Your task to perform on an android device: View the shopping cart on bestbuy. Add "usb-b" to the cart on bestbuy Image 0: 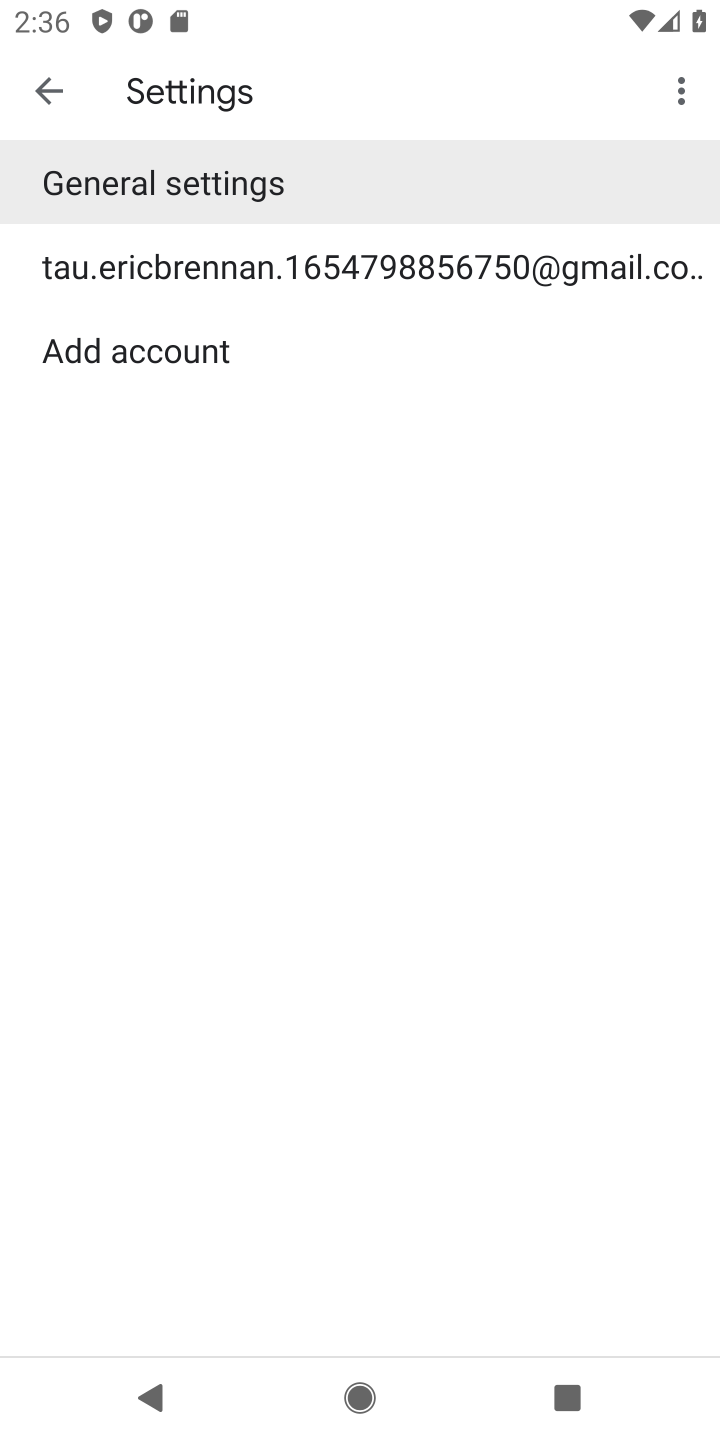
Step 0: press home button
Your task to perform on an android device: View the shopping cart on bestbuy. Add "usb-b" to the cart on bestbuy Image 1: 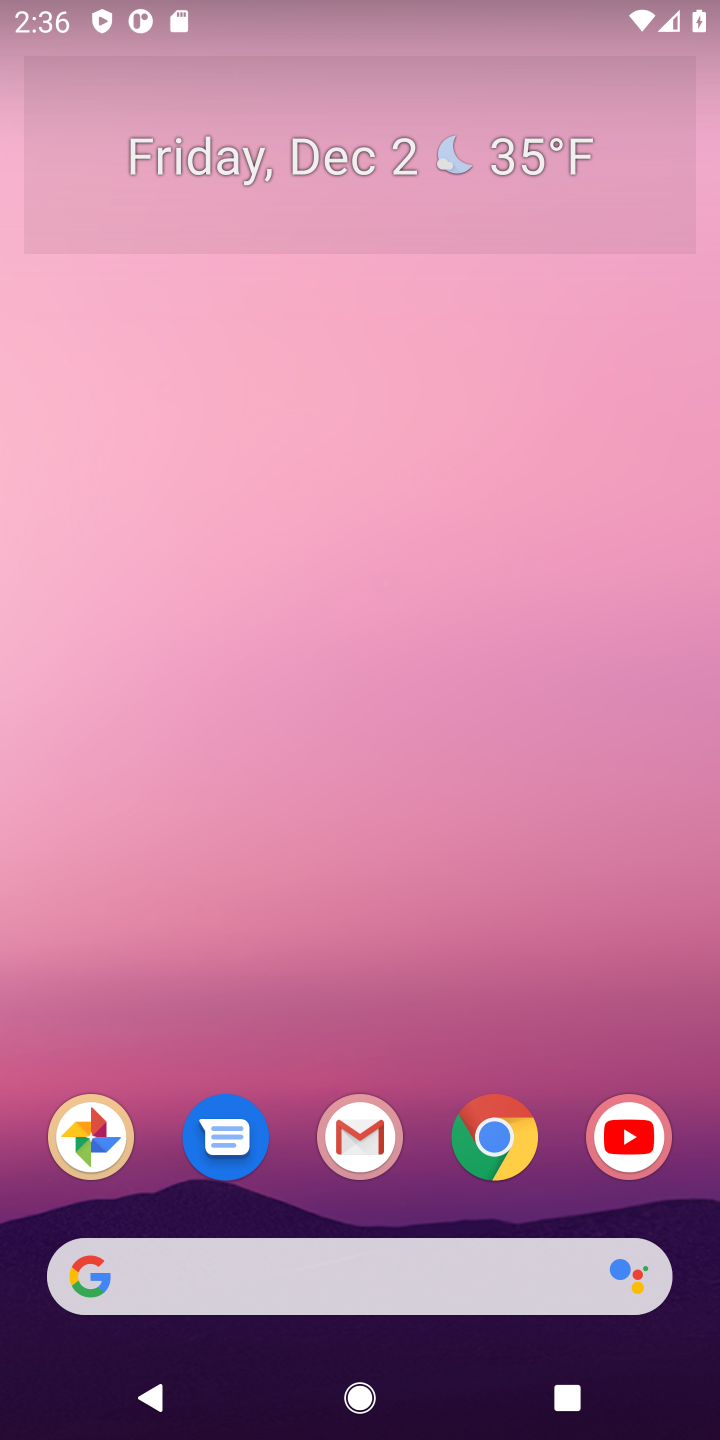
Step 1: drag from (331, 942) to (271, 370)
Your task to perform on an android device: View the shopping cart on bestbuy. Add "usb-b" to the cart on bestbuy Image 2: 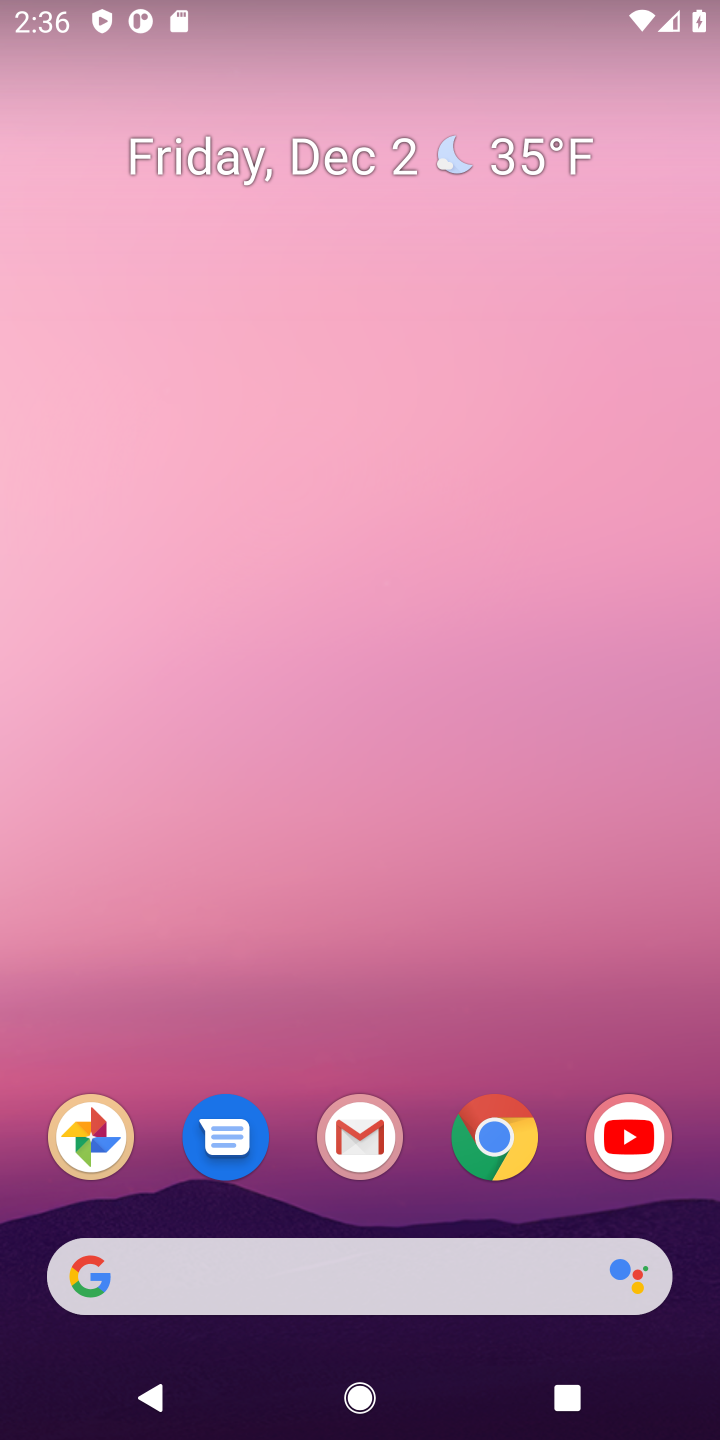
Step 2: click (362, 382)
Your task to perform on an android device: View the shopping cart on bestbuy. Add "usb-b" to the cart on bestbuy Image 3: 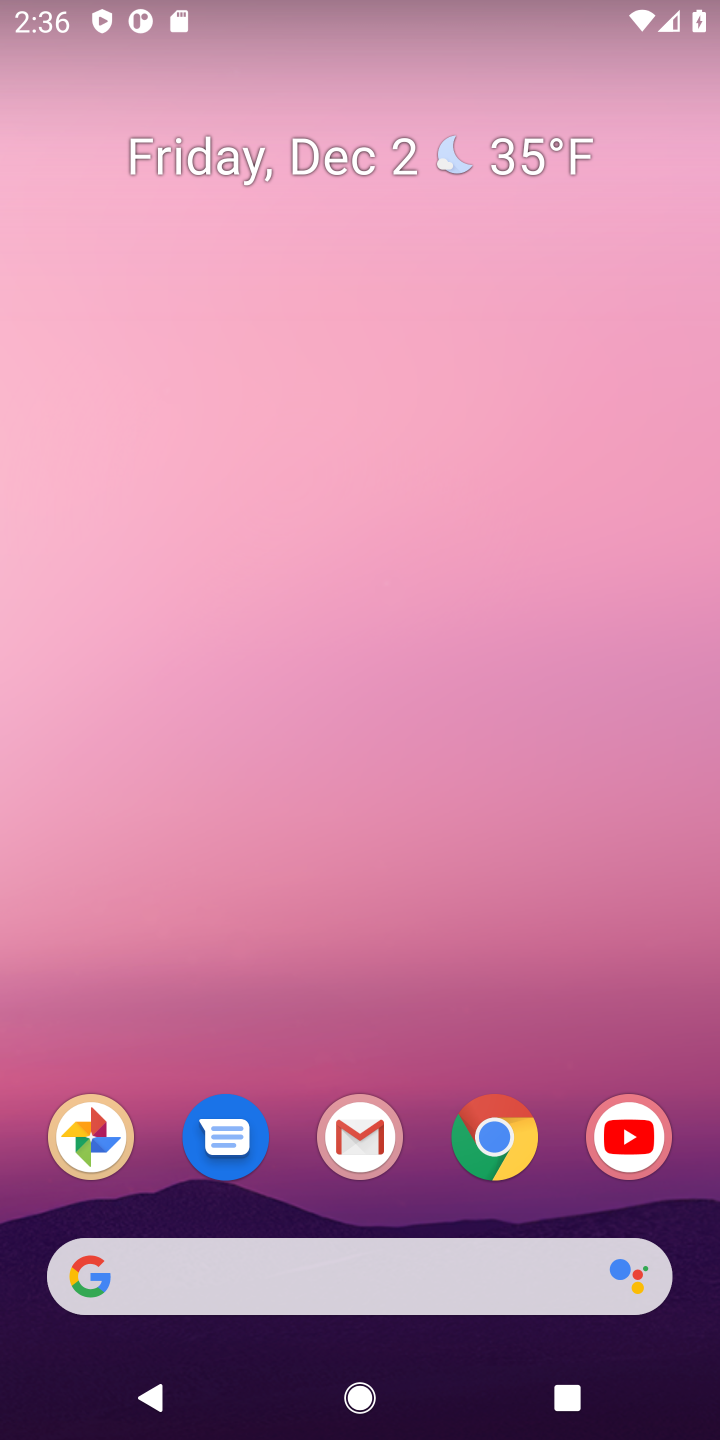
Step 3: drag from (282, 627) to (282, 263)
Your task to perform on an android device: View the shopping cart on bestbuy. Add "usb-b" to the cart on bestbuy Image 4: 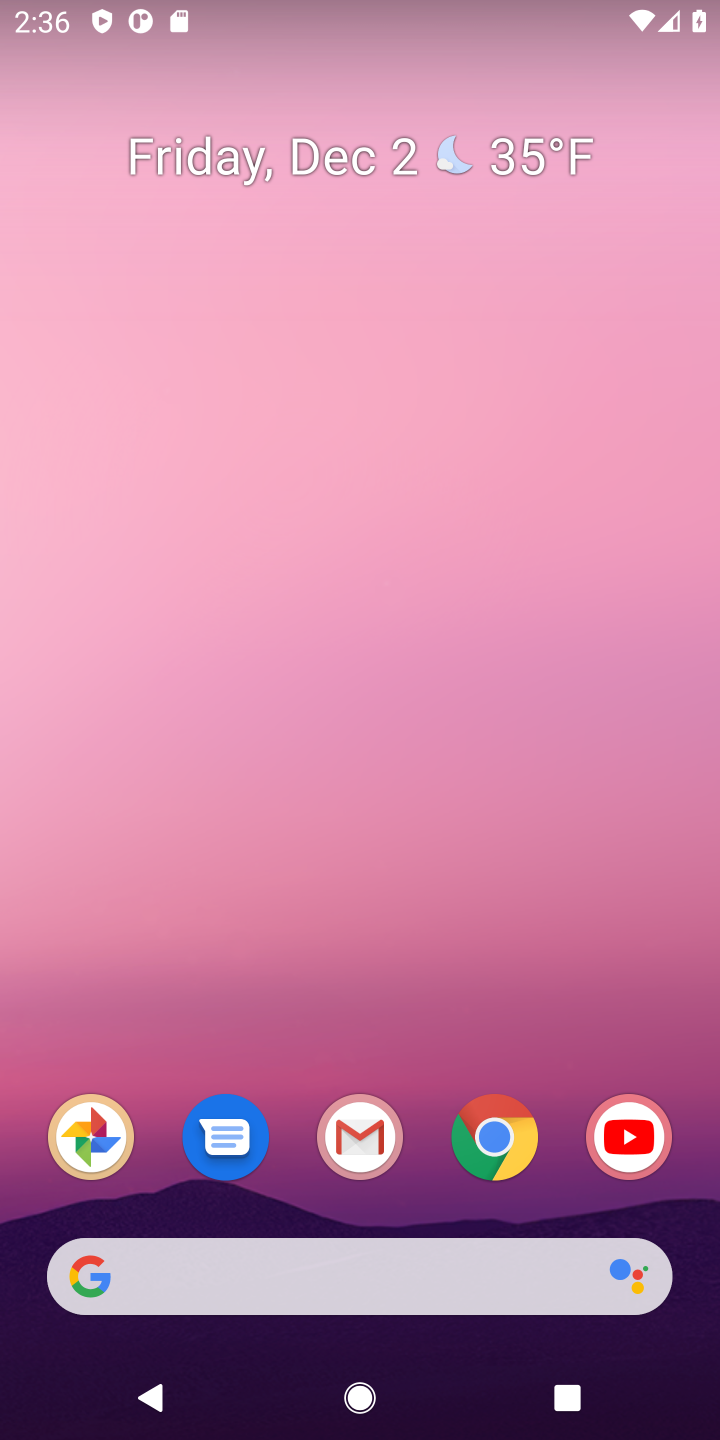
Step 4: drag from (364, 970) to (364, 240)
Your task to perform on an android device: View the shopping cart on bestbuy. Add "usb-b" to the cart on bestbuy Image 5: 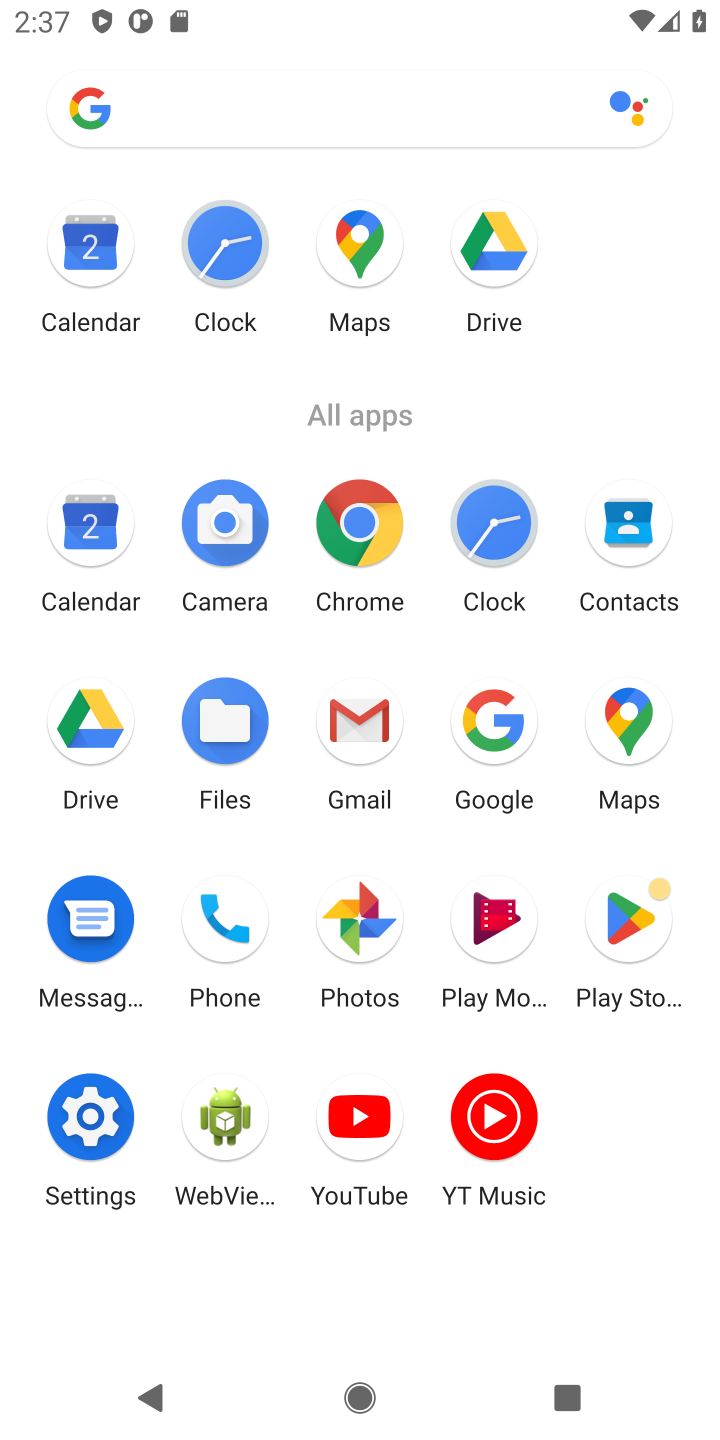
Step 5: click (499, 729)
Your task to perform on an android device: View the shopping cart on bestbuy. Add "usb-b" to the cart on bestbuy Image 6: 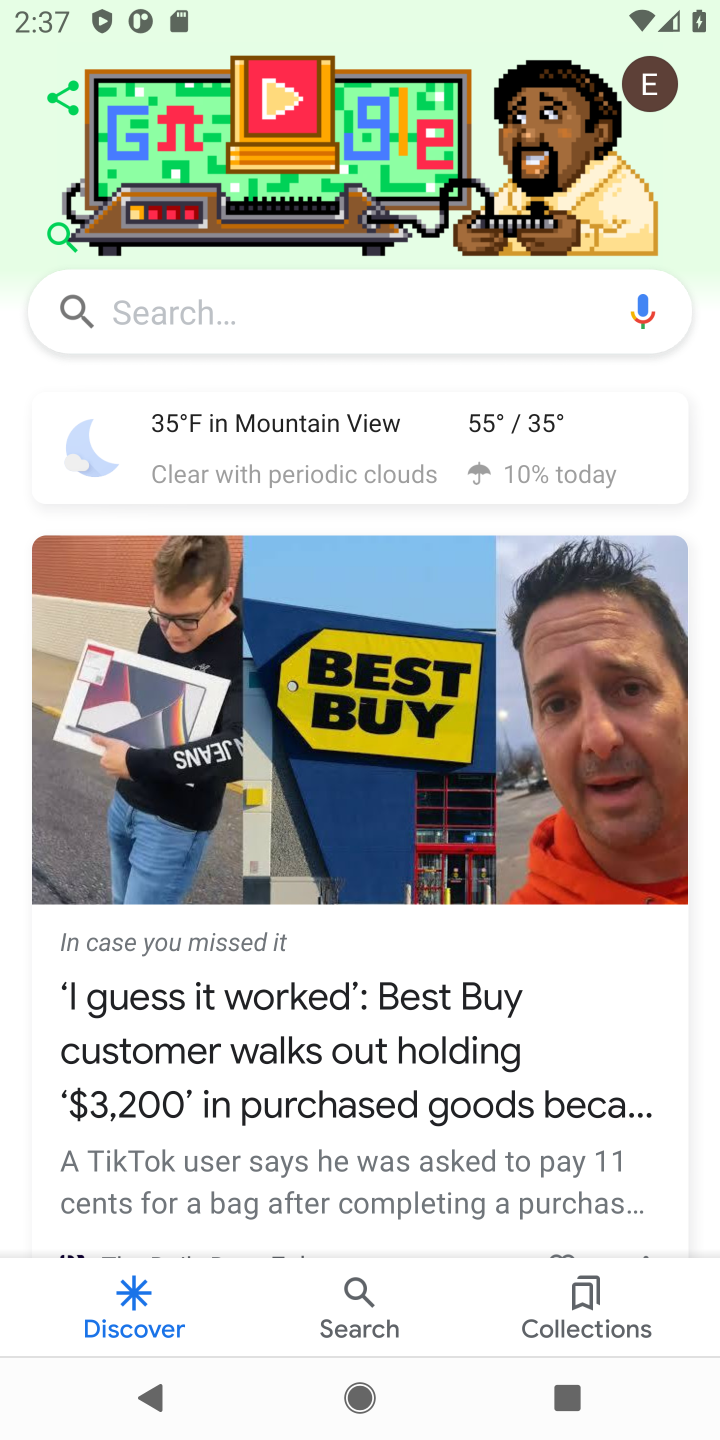
Step 6: click (190, 310)
Your task to perform on an android device: View the shopping cart on bestbuy. Add "usb-b" to the cart on bestbuy Image 7: 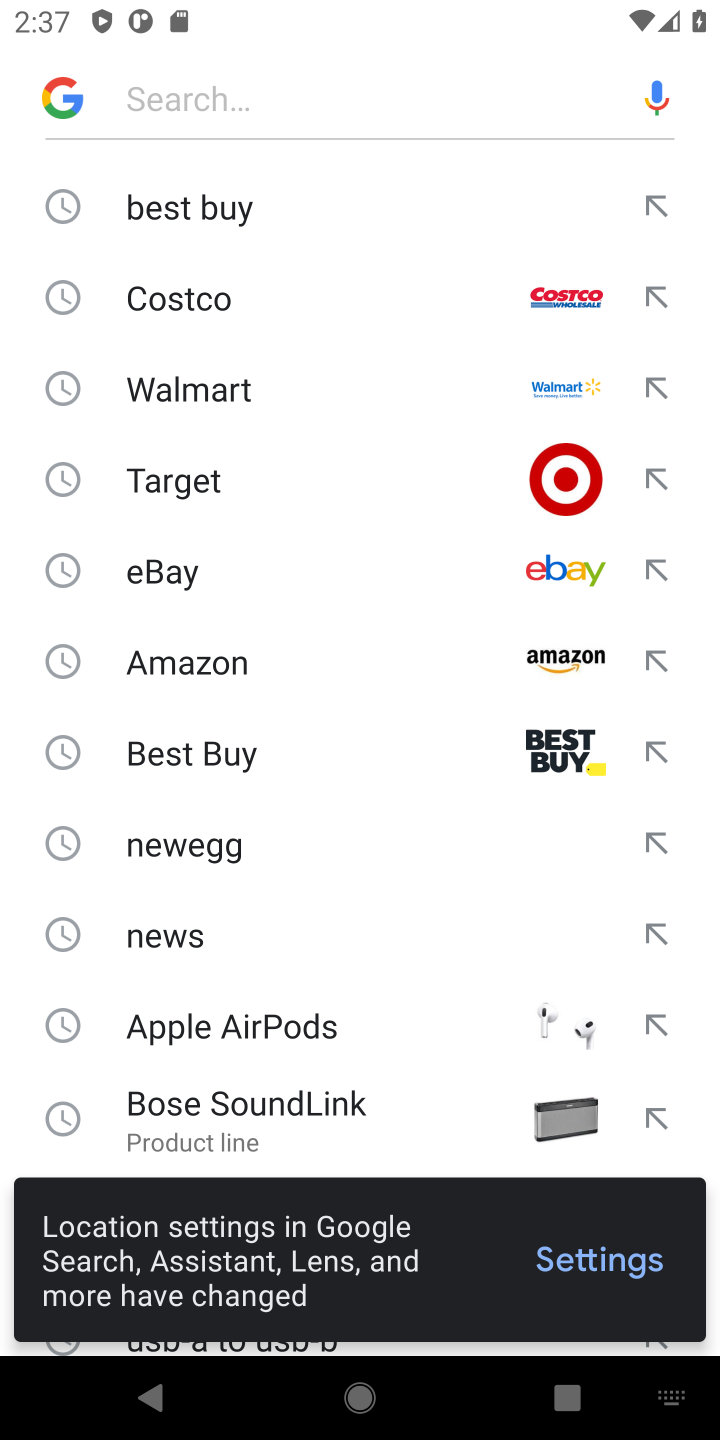
Step 7: click (199, 202)
Your task to perform on an android device: View the shopping cart on bestbuy. Add "usb-b" to the cart on bestbuy Image 8: 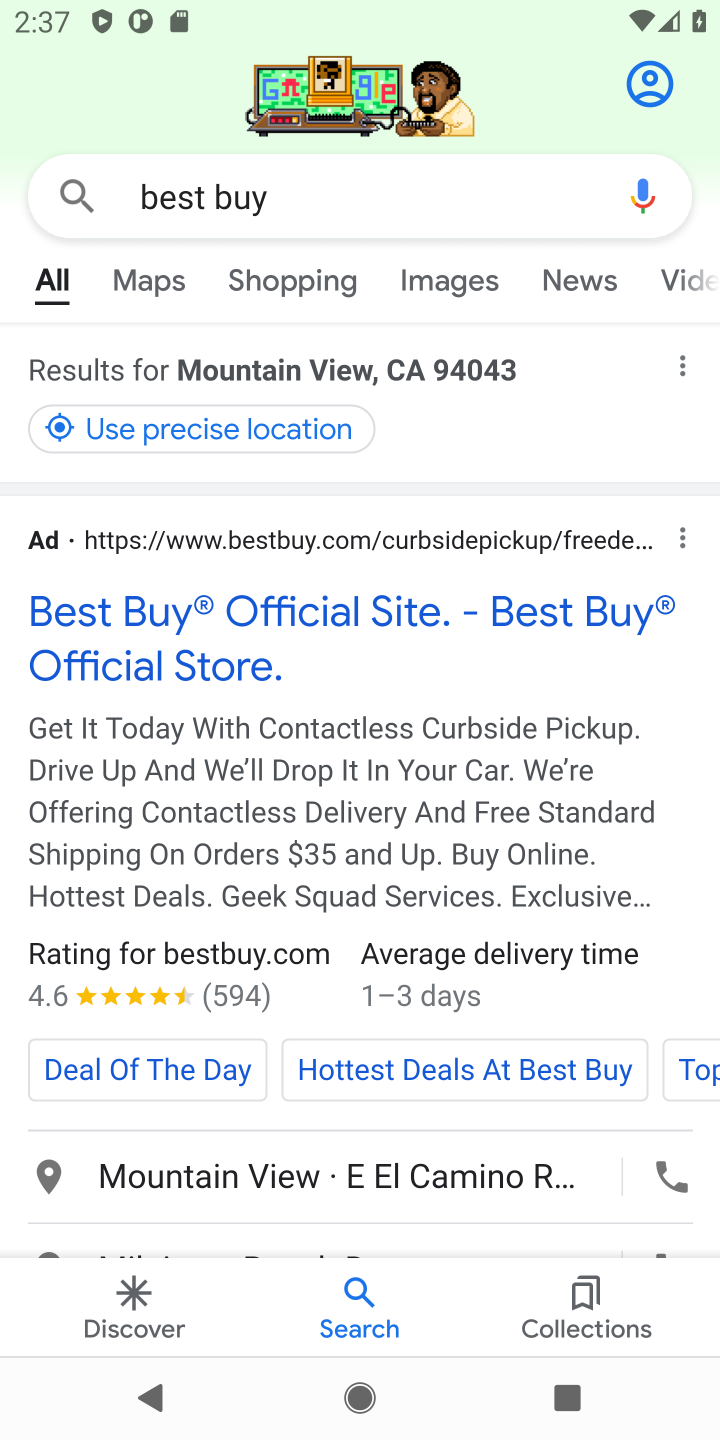
Step 8: click (212, 640)
Your task to perform on an android device: View the shopping cart on bestbuy. Add "usb-b" to the cart on bestbuy Image 9: 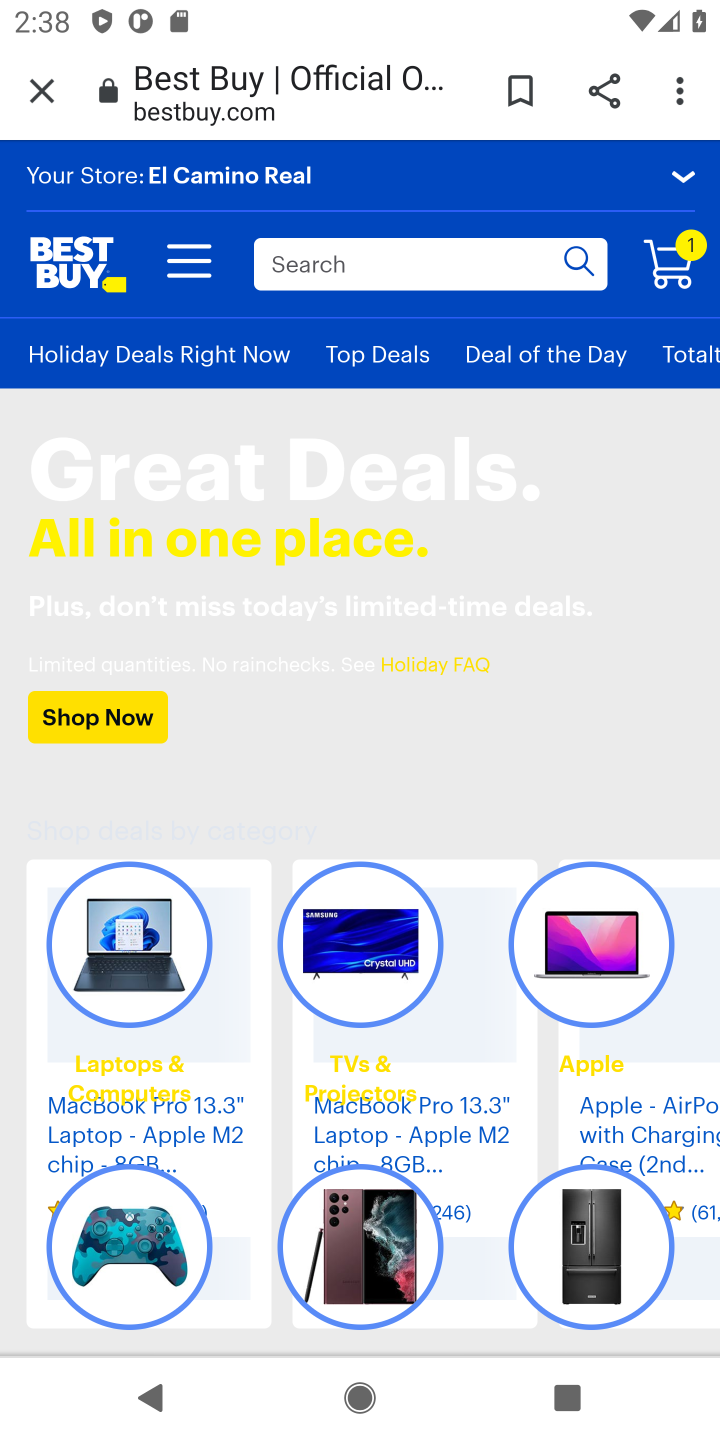
Step 9: click (315, 256)
Your task to perform on an android device: View the shopping cart on bestbuy. Add "usb-b" to the cart on bestbuy Image 10: 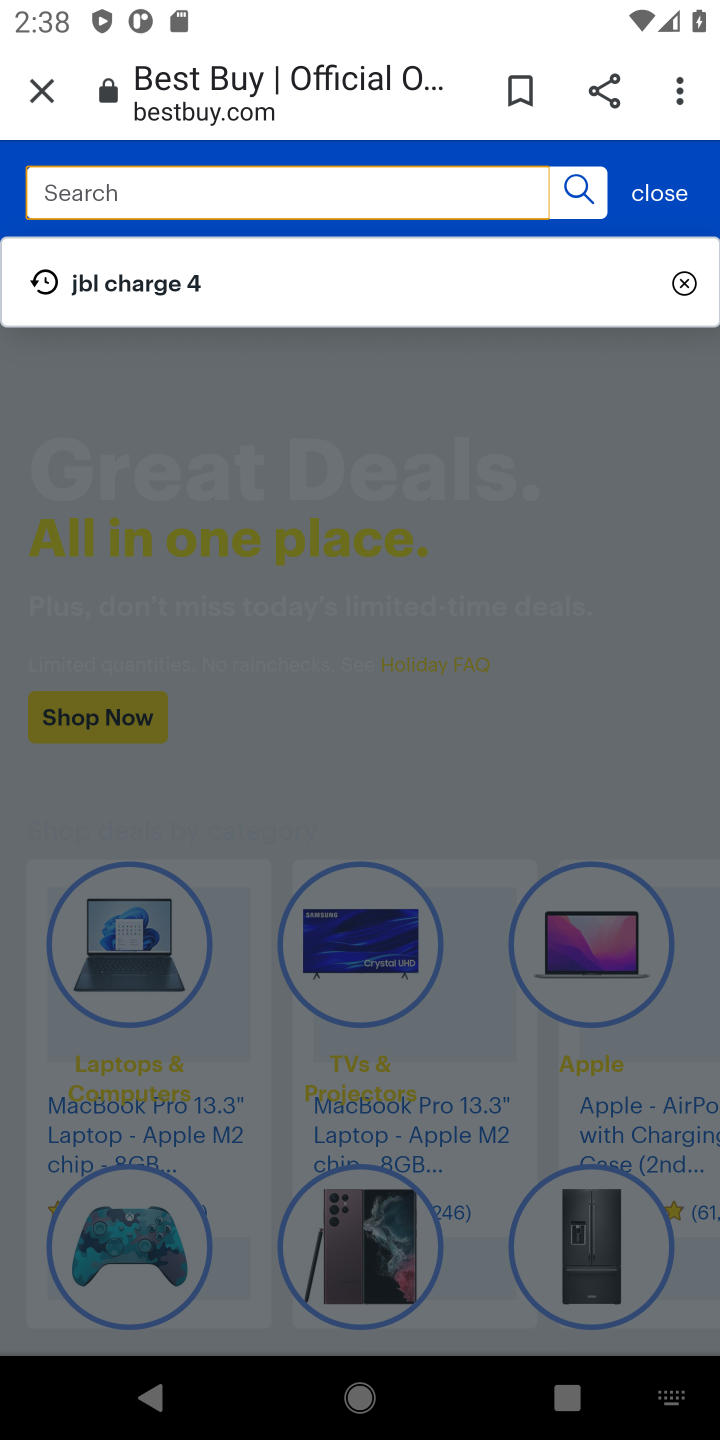
Step 10: type "usb-b"
Your task to perform on an android device: View the shopping cart on bestbuy. Add "usb-b" to the cart on bestbuy Image 11: 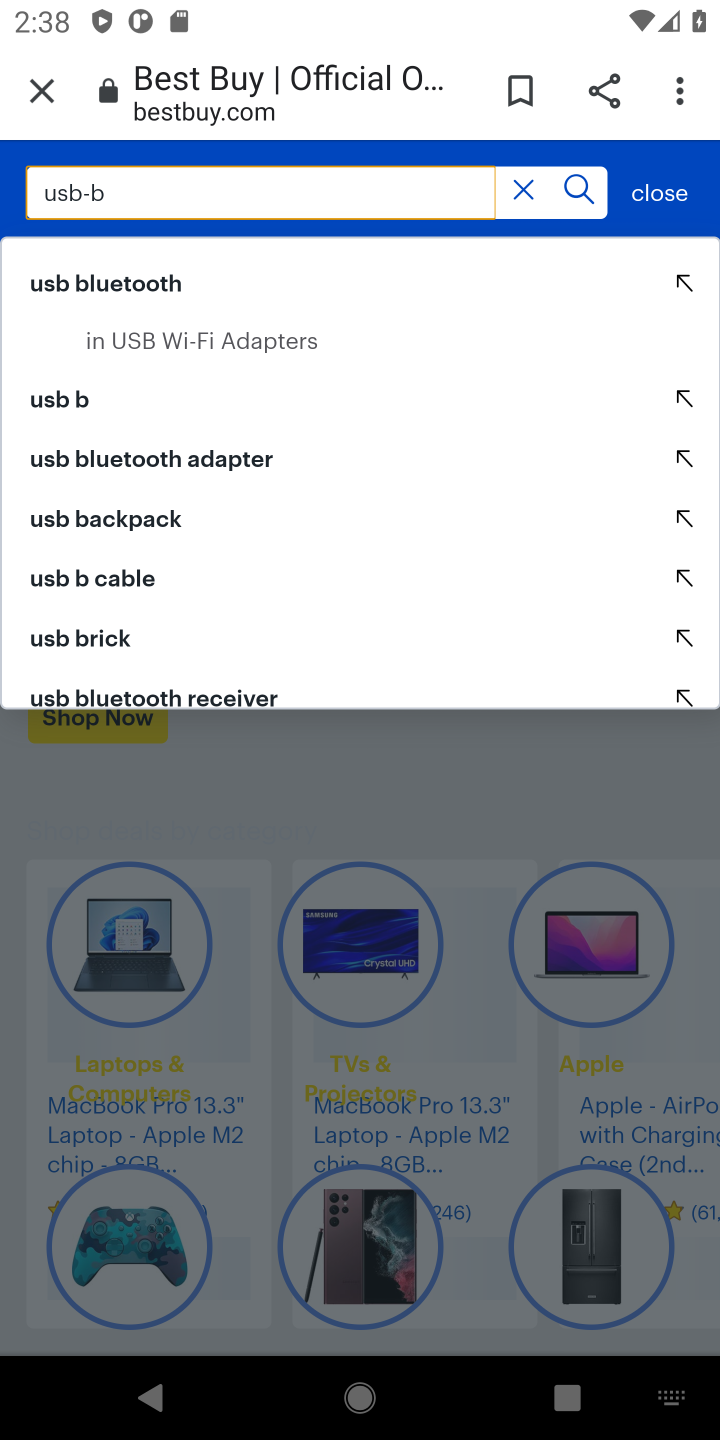
Step 11: click (63, 398)
Your task to perform on an android device: View the shopping cart on bestbuy. Add "usb-b" to the cart on bestbuy Image 12: 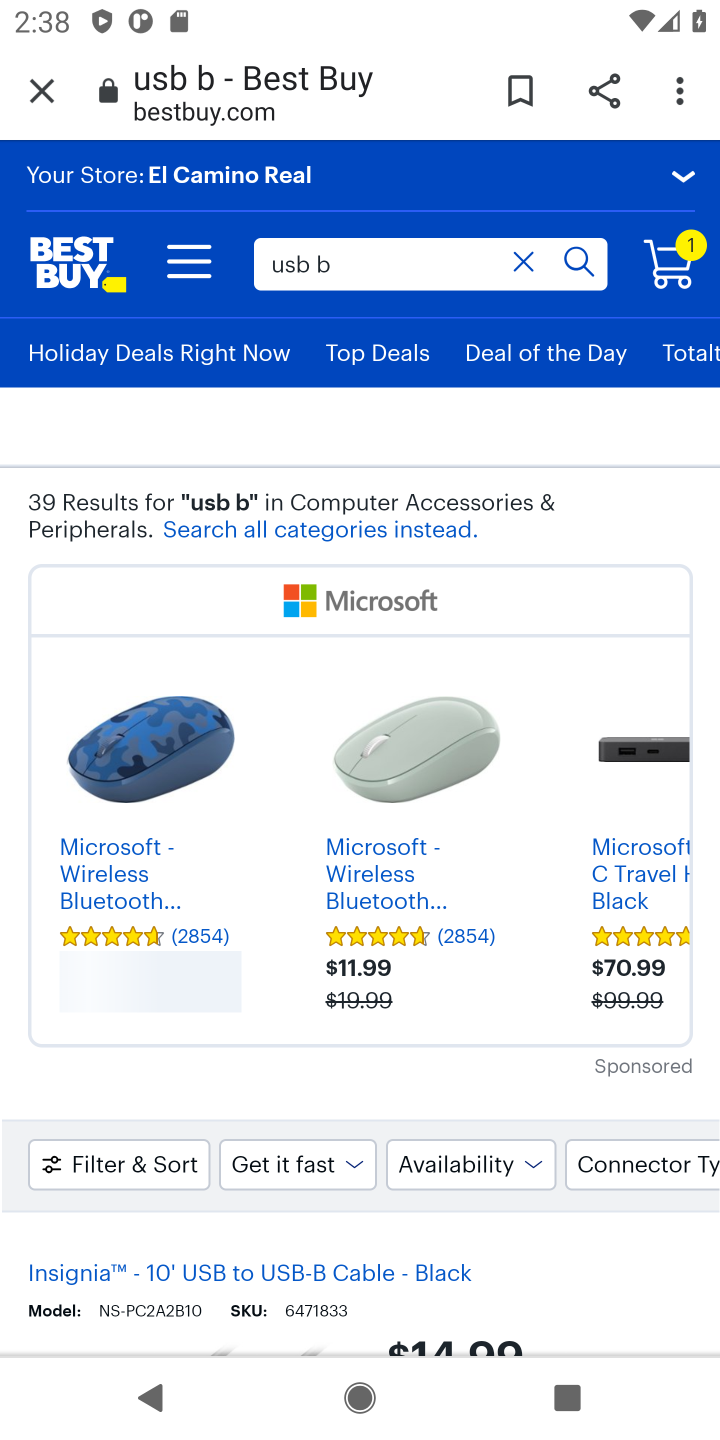
Step 12: drag from (296, 1170) to (294, 573)
Your task to perform on an android device: View the shopping cart on bestbuy. Add "usb-b" to the cart on bestbuy Image 13: 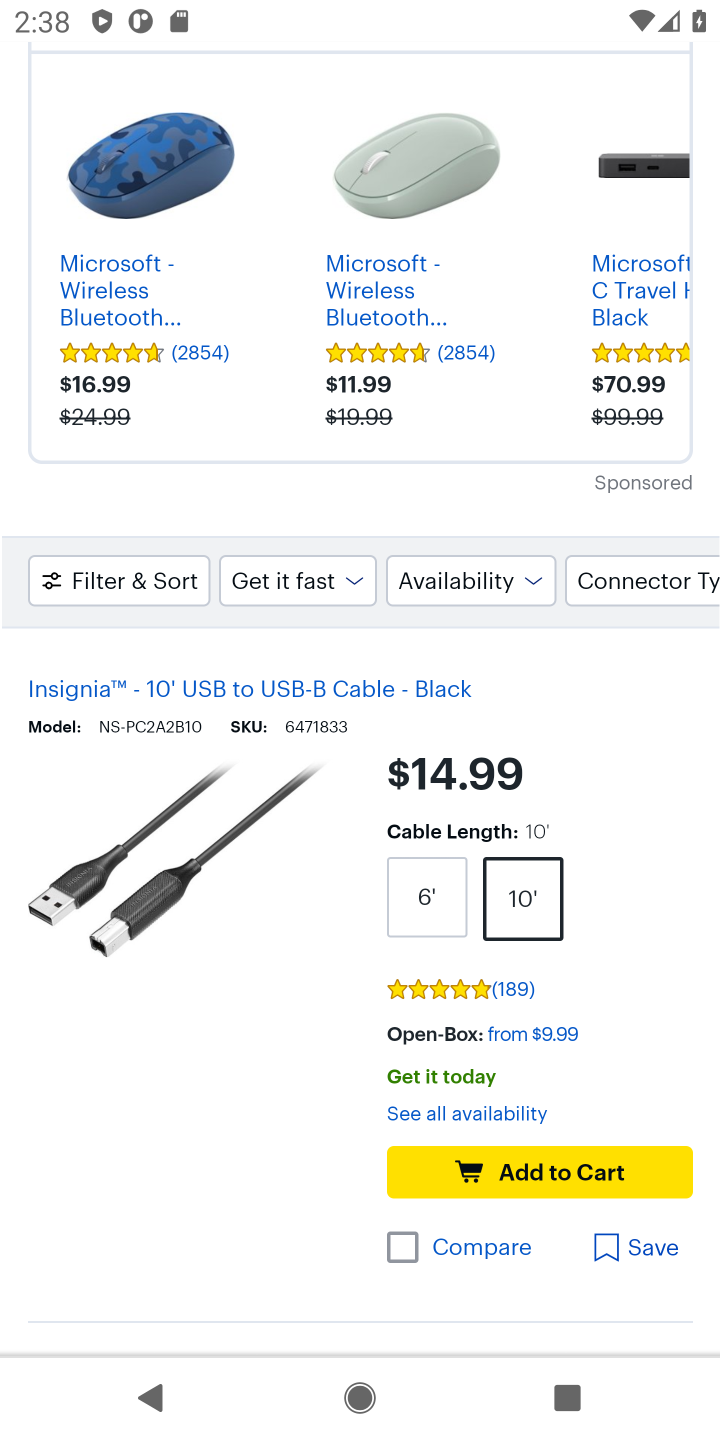
Step 13: click (539, 1164)
Your task to perform on an android device: View the shopping cart on bestbuy. Add "usb-b" to the cart on bestbuy Image 14: 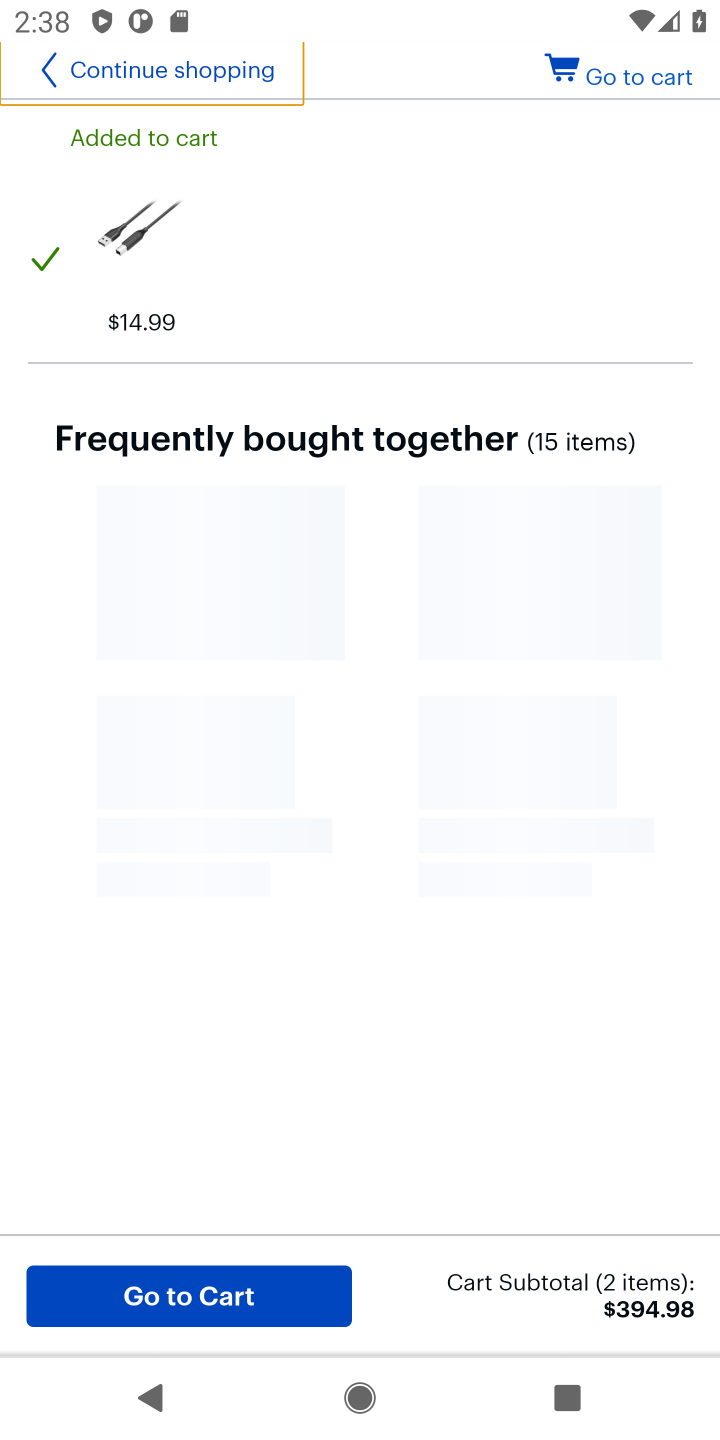
Step 14: task complete